Your task to perform on an android device: When is my next meeting? Image 0: 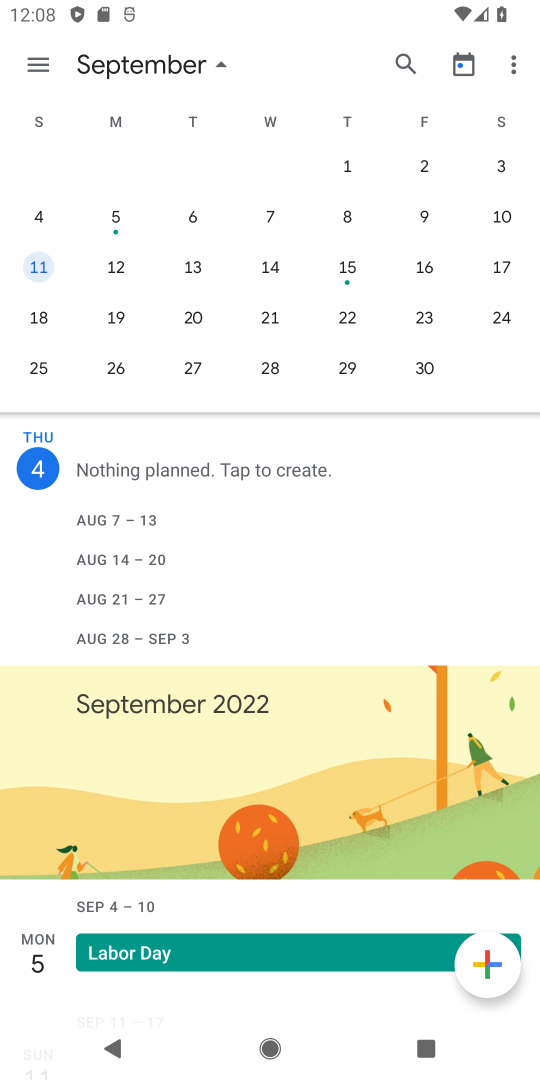
Step 0: press home button
Your task to perform on an android device: When is my next meeting? Image 1: 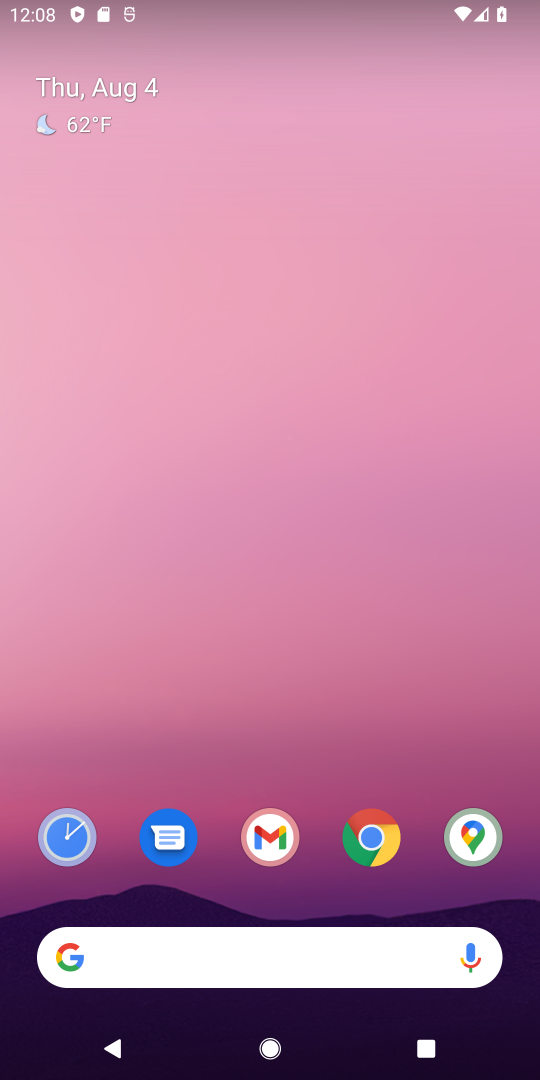
Step 1: drag from (387, 757) to (376, 91)
Your task to perform on an android device: When is my next meeting? Image 2: 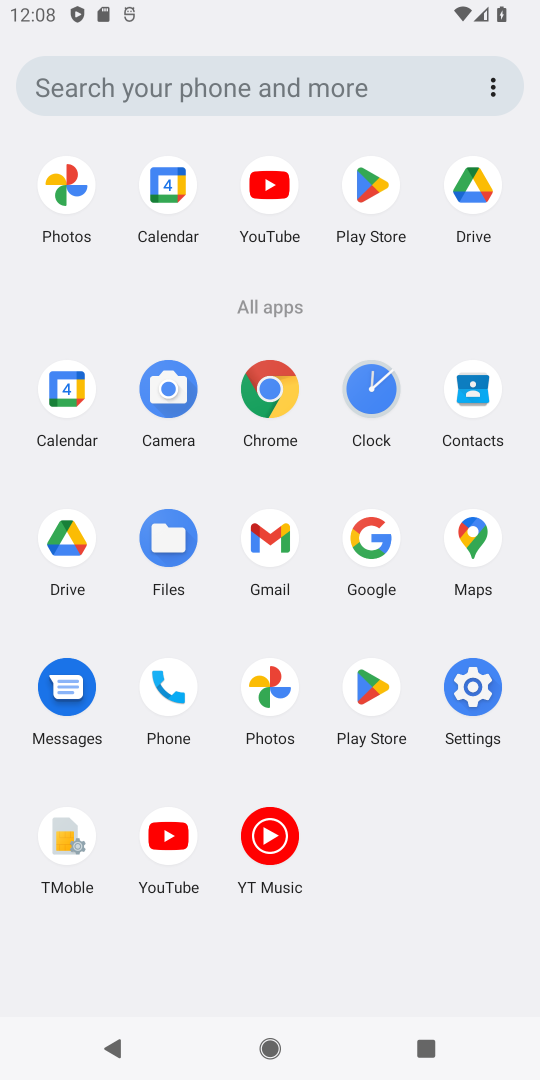
Step 2: click (60, 400)
Your task to perform on an android device: When is my next meeting? Image 3: 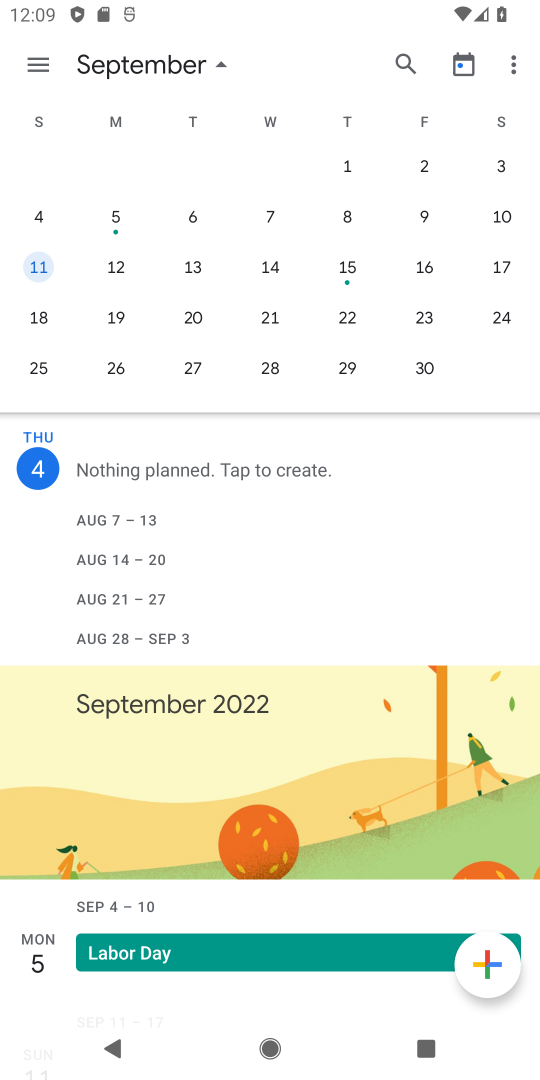
Step 3: drag from (54, 252) to (509, 252)
Your task to perform on an android device: When is my next meeting? Image 4: 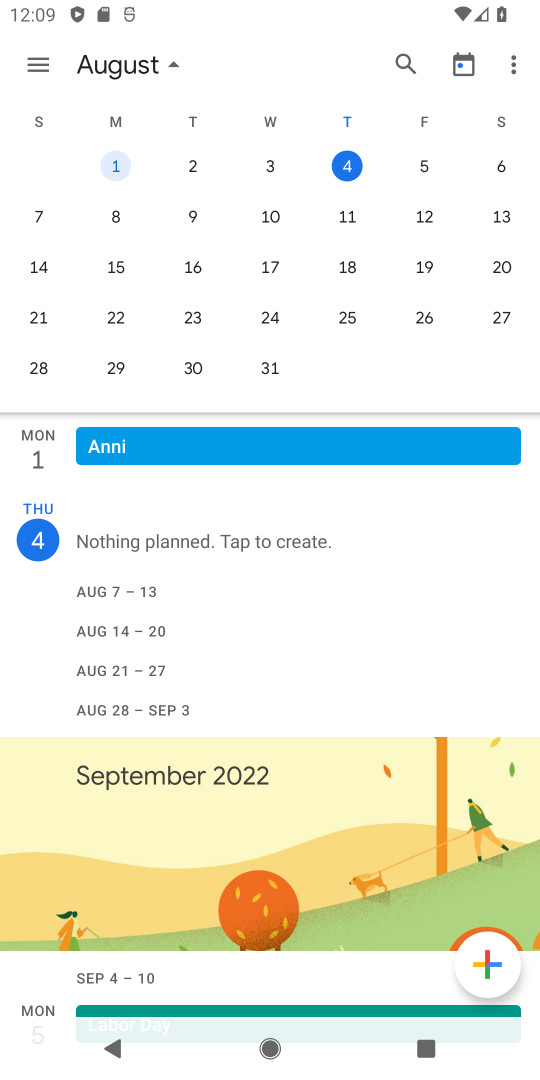
Step 4: click (359, 165)
Your task to perform on an android device: When is my next meeting? Image 5: 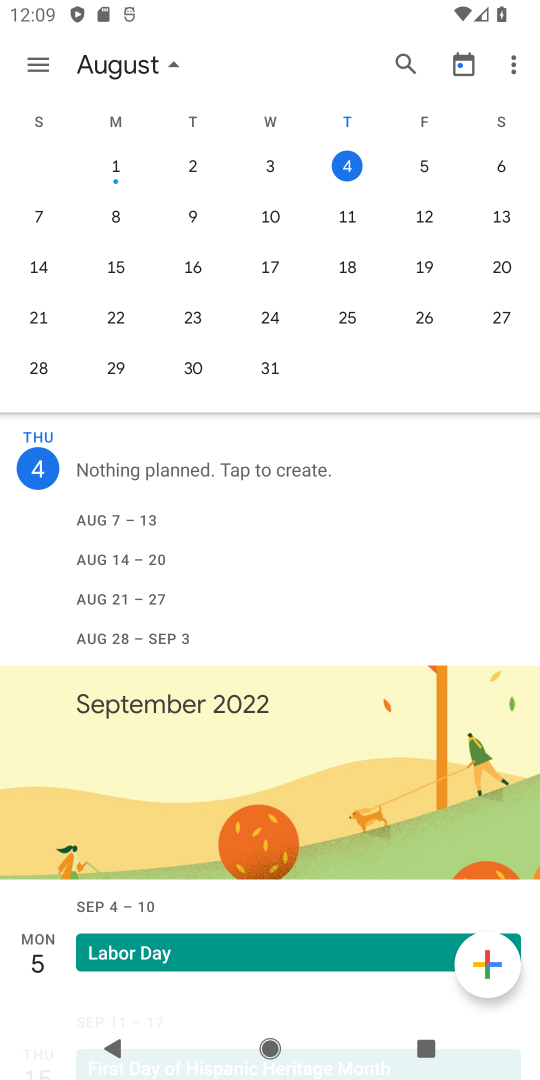
Step 5: task complete